Your task to perform on an android device: Open notification settings Image 0: 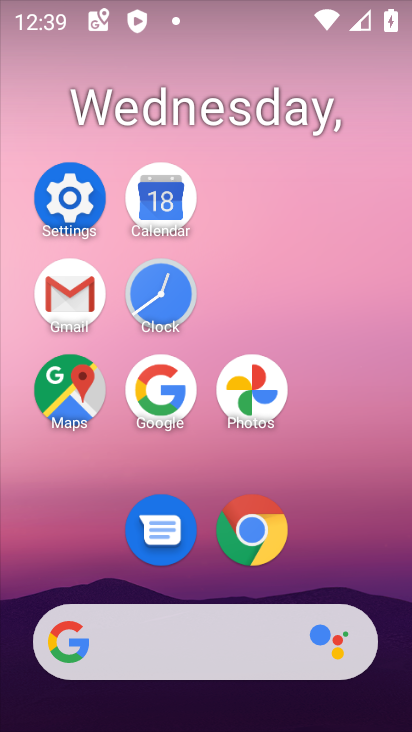
Step 0: click (76, 195)
Your task to perform on an android device: Open notification settings Image 1: 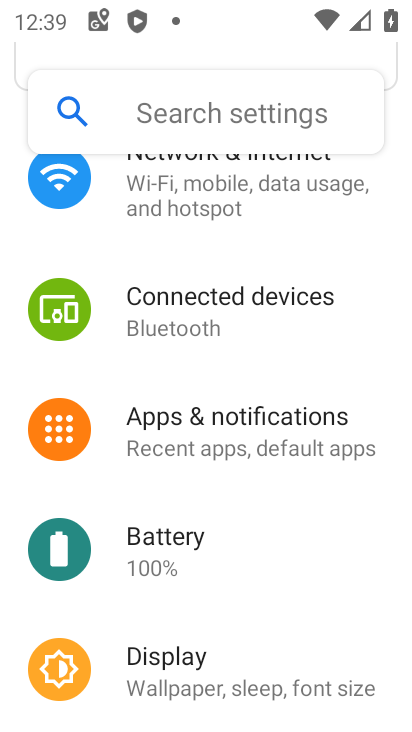
Step 1: click (188, 439)
Your task to perform on an android device: Open notification settings Image 2: 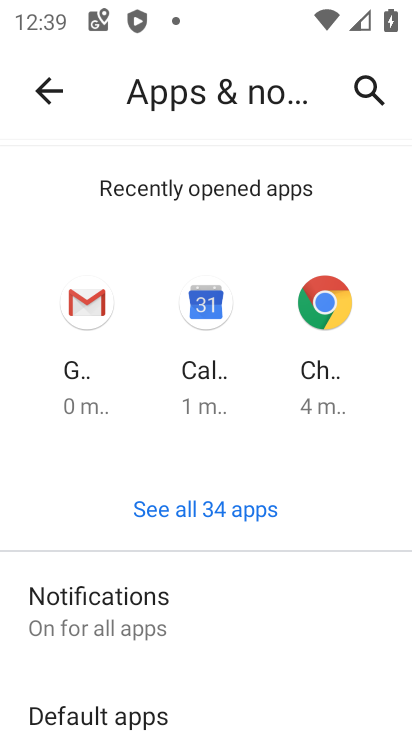
Step 2: task complete